Your task to perform on an android device: Open the stopwatch Image 0: 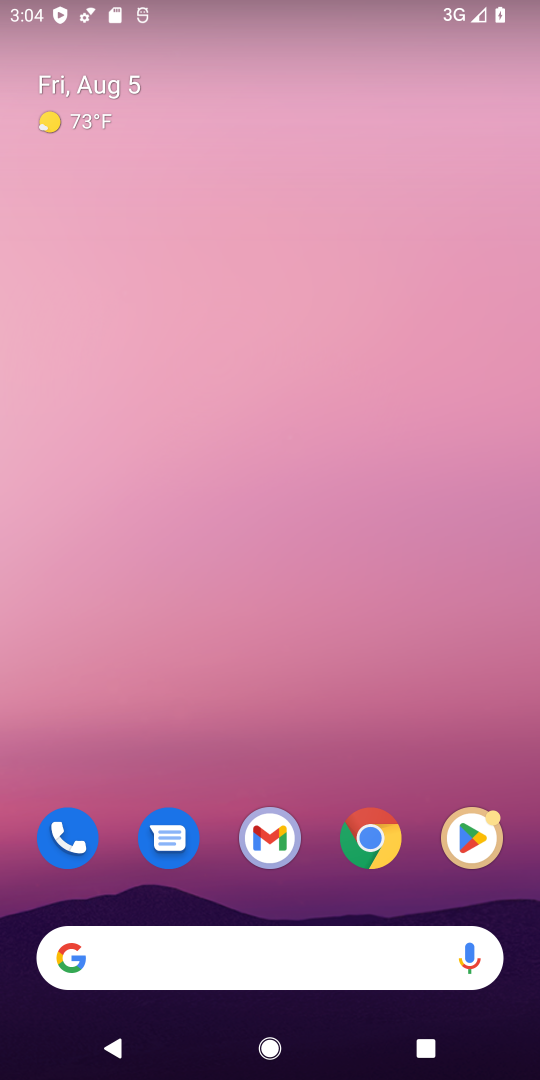
Step 0: drag from (229, 937) to (284, 408)
Your task to perform on an android device: Open the stopwatch Image 1: 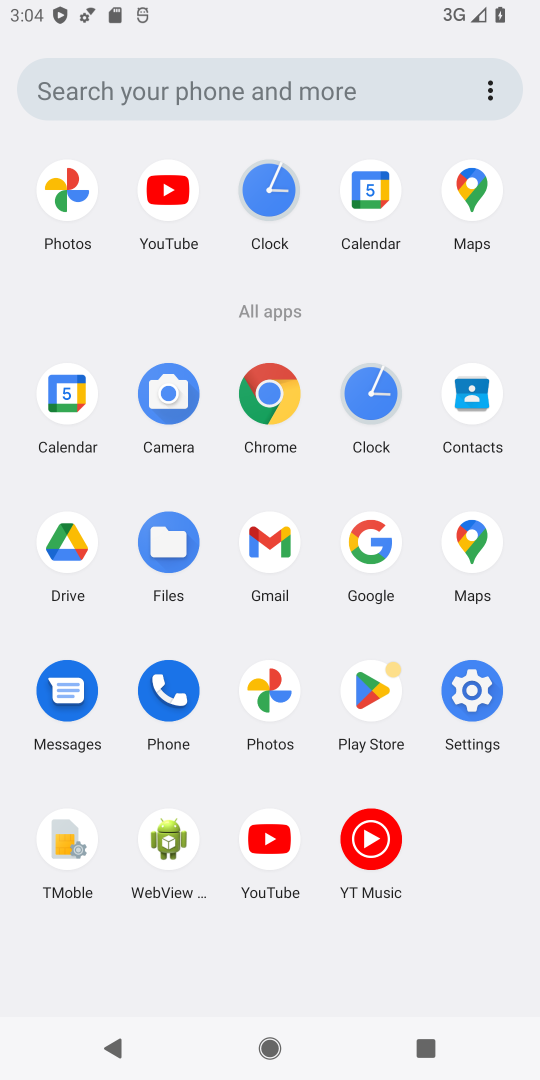
Step 1: click (357, 397)
Your task to perform on an android device: Open the stopwatch Image 2: 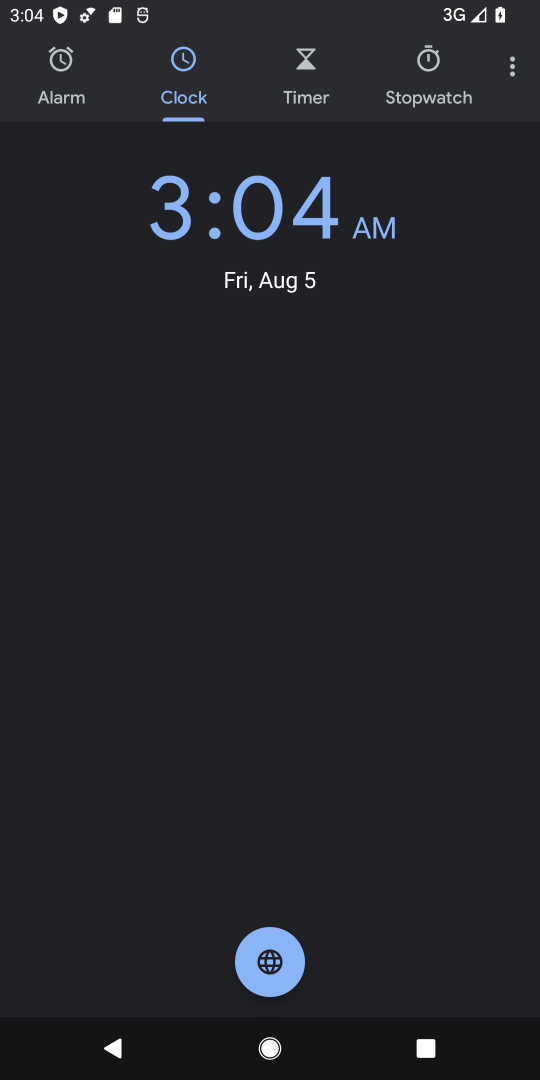
Step 2: click (423, 92)
Your task to perform on an android device: Open the stopwatch Image 3: 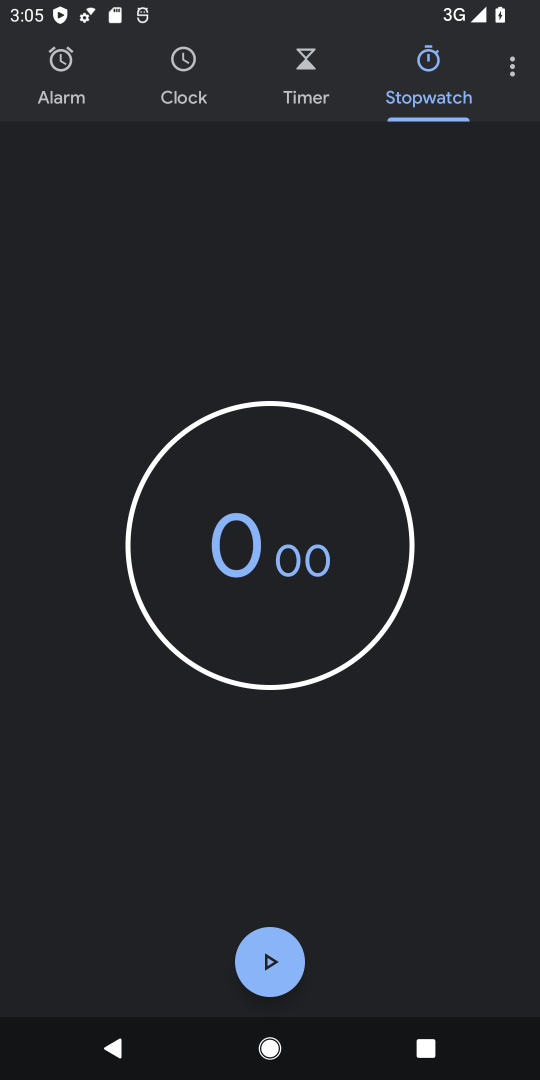
Step 3: task complete